Your task to perform on an android device: When is my next meeting? Image 0: 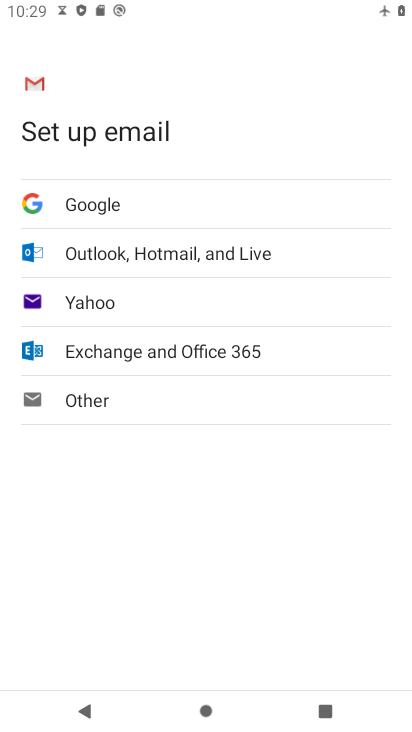
Step 0: press back button
Your task to perform on an android device: When is my next meeting? Image 1: 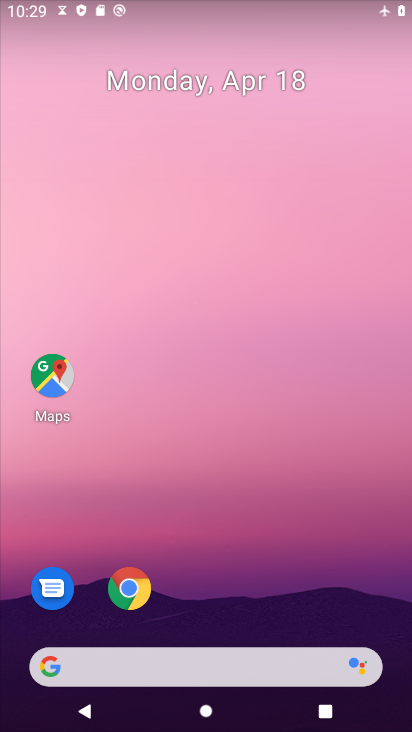
Step 1: drag from (320, 532) to (214, 27)
Your task to perform on an android device: When is my next meeting? Image 2: 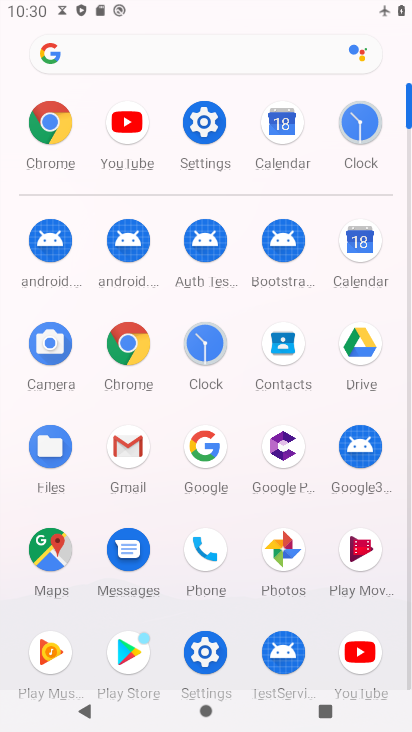
Step 2: drag from (7, 456) to (22, 261)
Your task to perform on an android device: When is my next meeting? Image 3: 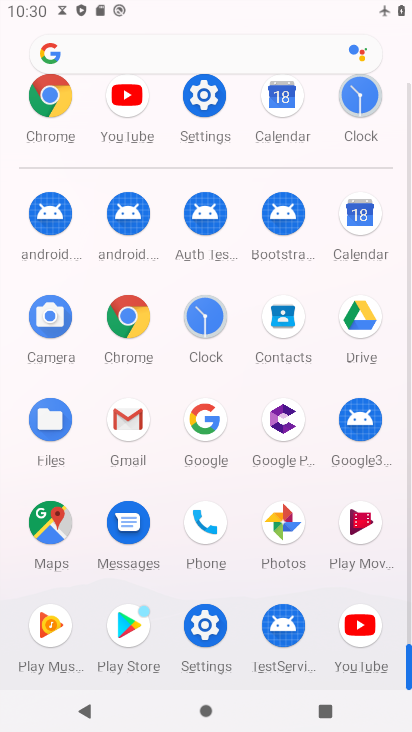
Step 3: click (360, 211)
Your task to perform on an android device: When is my next meeting? Image 4: 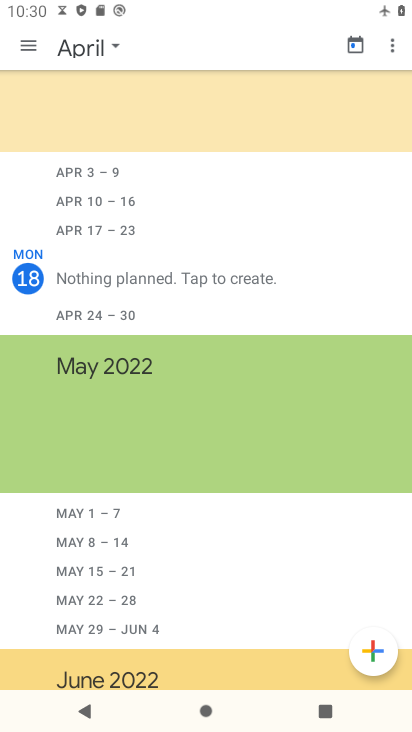
Step 4: click (6, 44)
Your task to perform on an android device: When is my next meeting? Image 5: 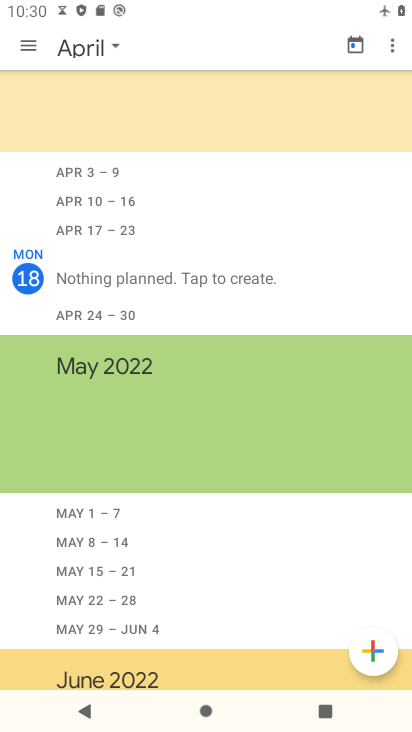
Step 5: click (29, 44)
Your task to perform on an android device: When is my next meeting? Image 6: 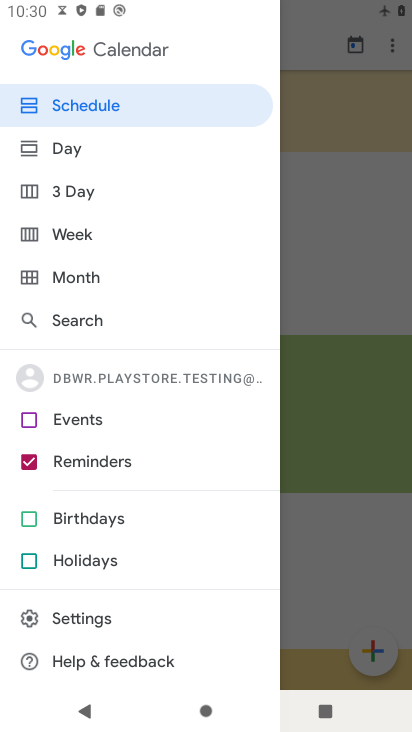
Step 6: click (70, 413)
Your task to perform on an android device: When is my next meeting? Image 7: 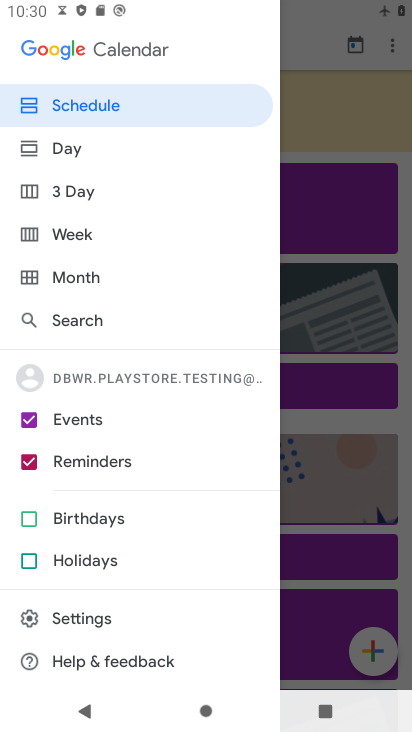
Step 7: click (70, 413)
Your task to perform on an android device: When is my next meeting? Image 8: 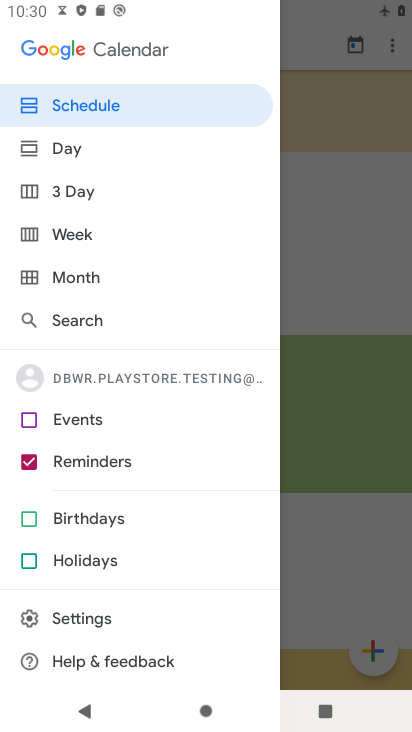
Step 8: drag from (159, 565) to (188, 286)
Your task to perform on an android device: When is my next meeting? Image 9: 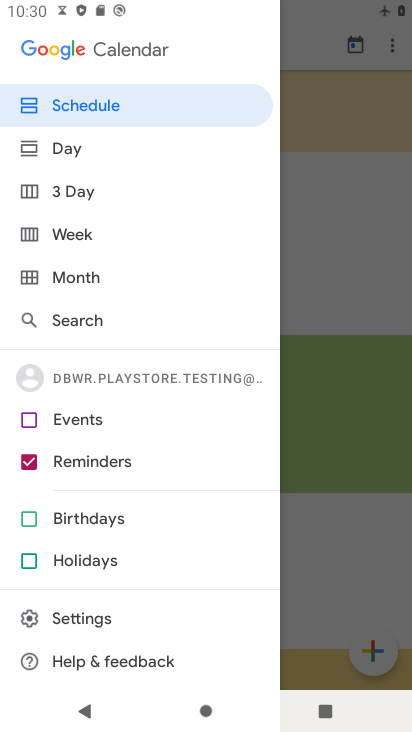
Step 9: click (90, 283)
Your task to perform on an android device: When is my next meeting? Image 10: 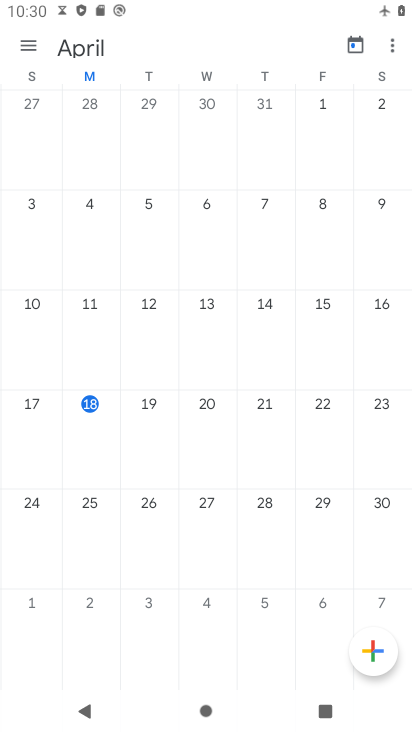
Step 10: drag from (250, 538) to (241, 167)
Your task to perform on an android device: When is my next meeting? Image 11: 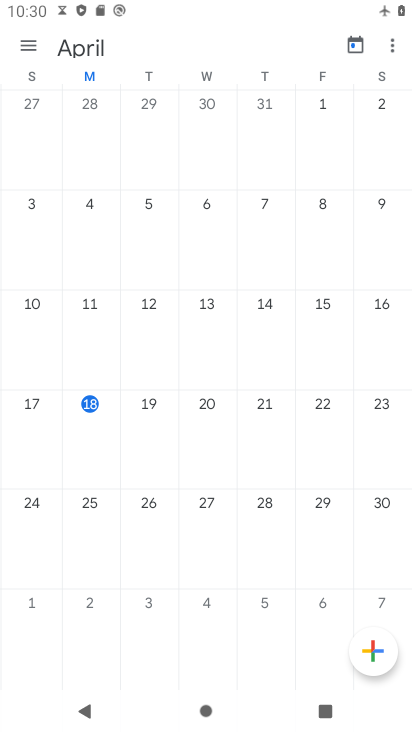
Step 11: click (32, 52)
Your task to perform on an android device: When is my next meeting? Image 12: 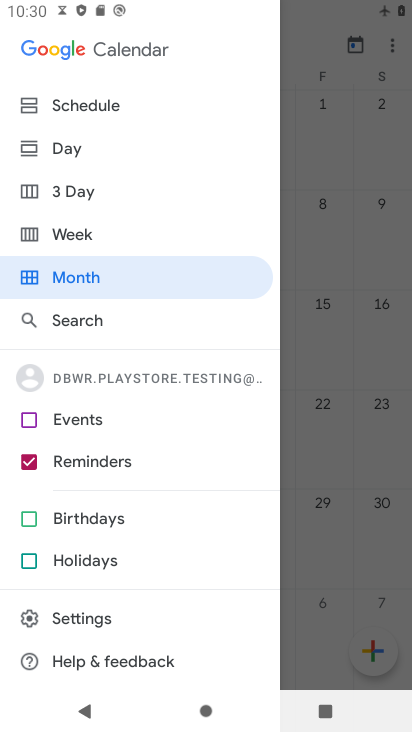
Step 12: click (64, 93)
Your task to perform on an android device: When is my next meeting? Image 13: 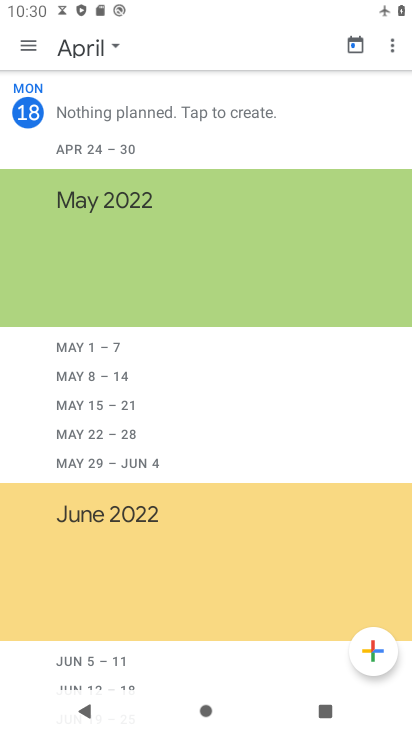
Step 13: task complete